Your task to perform on an android device: toggle sleep mode Image 0: 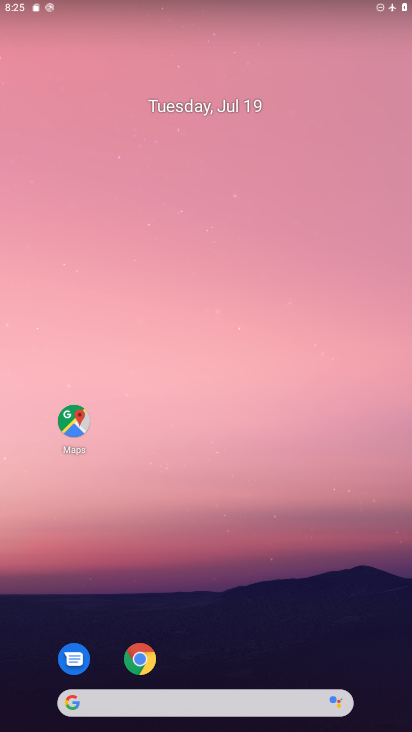
Step 0: drag from (246, 603) to (327, 254)
Your task to perform on an android device: toggle sleep mode Image 1: 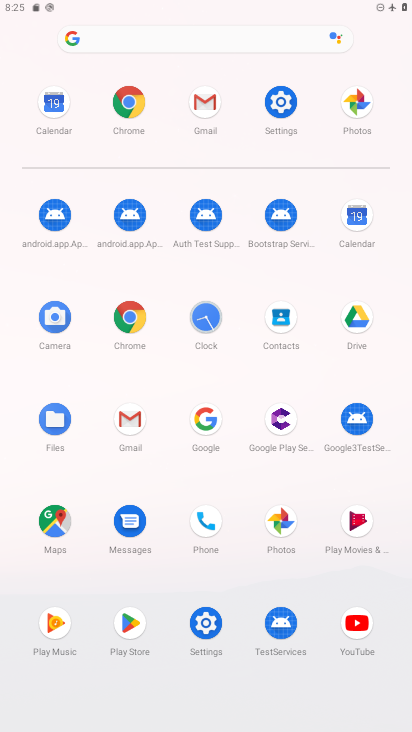
Step 1: click (275, 104)
Your task to perform on an android device: toggle sleep mode Image 2: 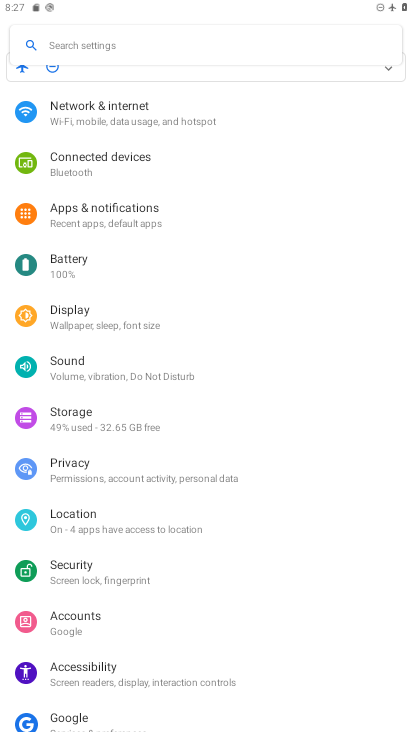
Step 2: task complete